Your task to perform on an android device: change the clock style Image 0: 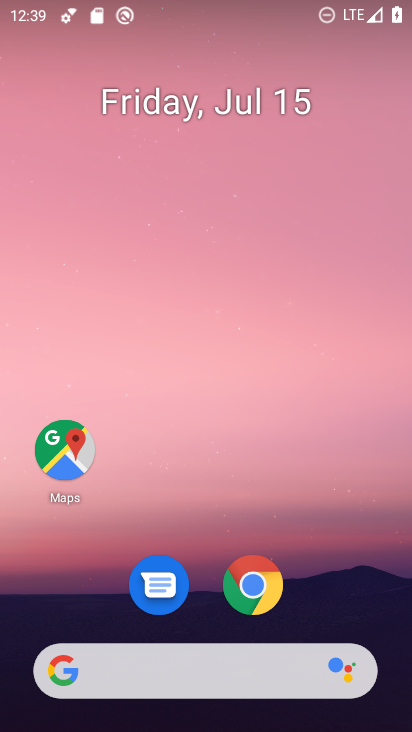
Step 0: drag from (320, 491) to (246, 70)
Your task to perform on an android device: change the clock style Image 1: 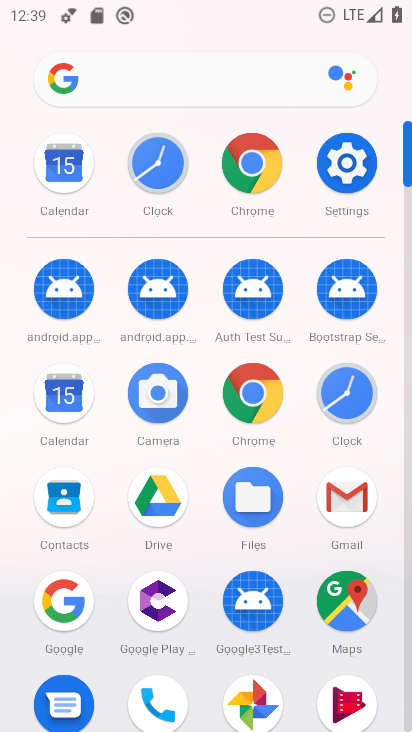
Step 1: click (174, 172)
Your task to perform on an android device: change the clock style Image 2: 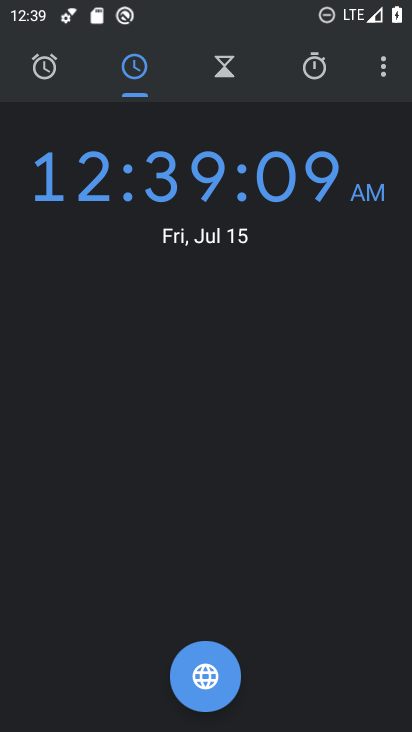
Step 2: click (380, 74)
Your task to perform on an android device: change the clock style Image 3: 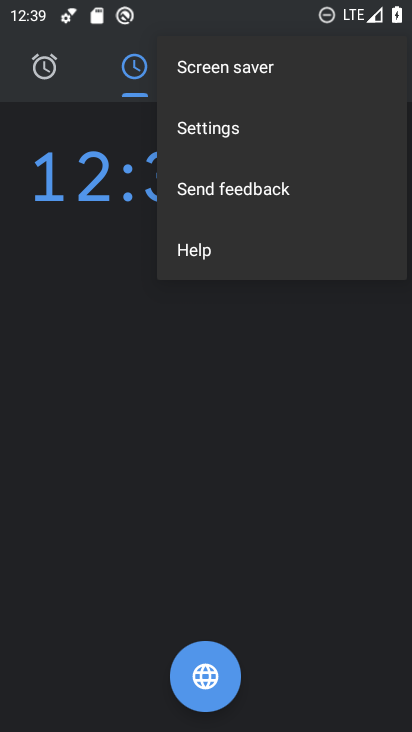
Step 3: click (268, 136)
Your task to perform on an android device: change the clock style Image 4: 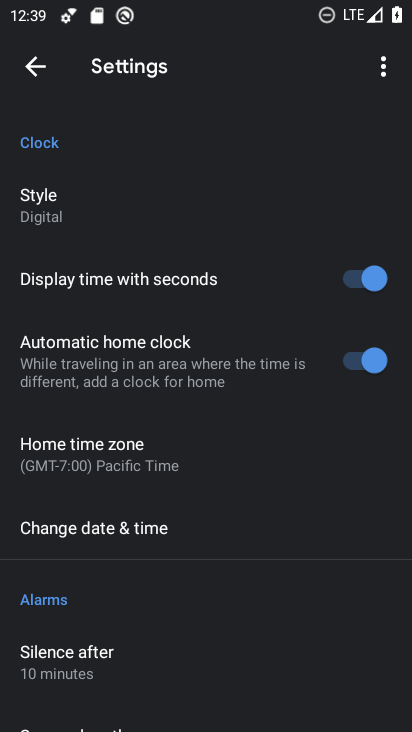
Step 4: click (63, 206)
Your task to perform on an android device: change the clock style Image 5: 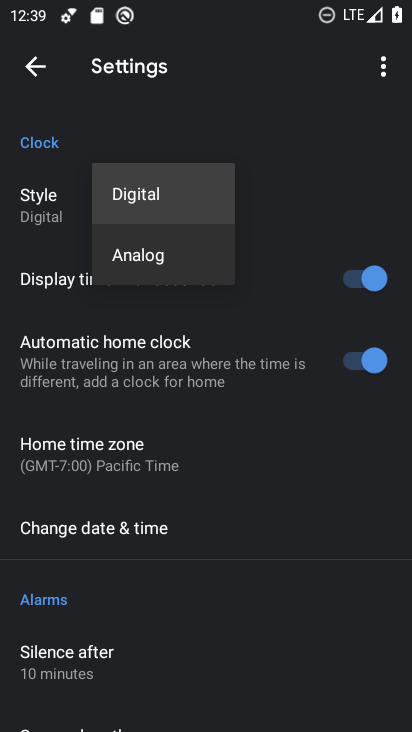
Step 5: click (169, 255)
Your task to perform on an android device: change the clock style Image 6: 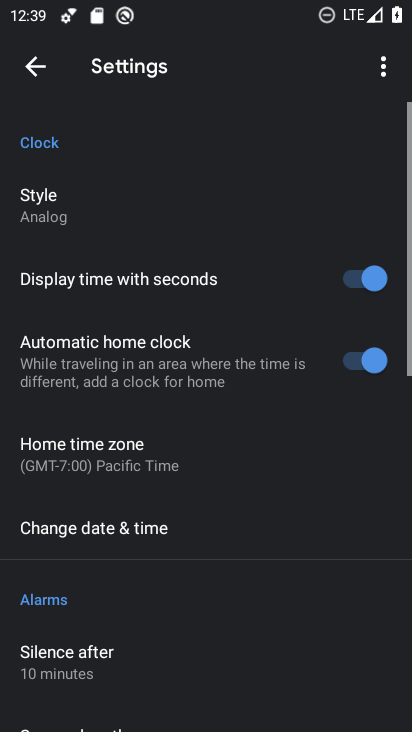
Step 6: click (42, 64)
Your task to perform on an android device: change the clock style Image 7: 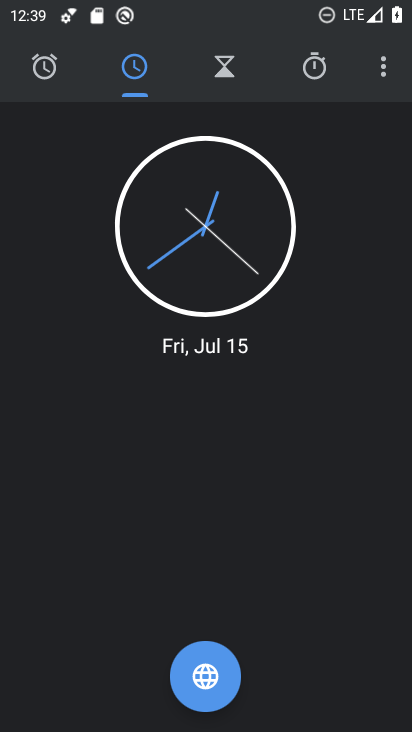
Step 7: task complete